Your task to perform on an android device: toggle wifi Image 0: 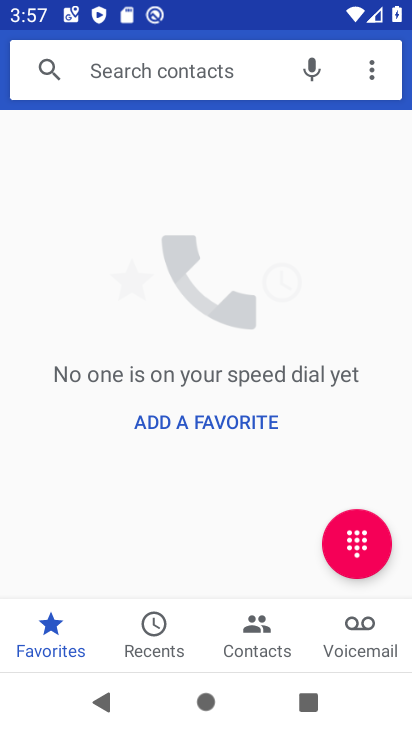
Step 0: press home button
Your task to perform on an android device: toggle wifi Image 1: 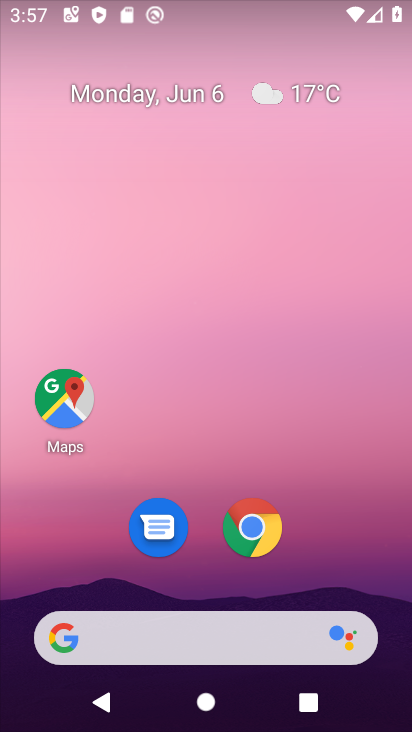
Step 1: drag from (155, 563) to (158, 316)
Your task to perform on an android device: toggle wifi Image 2: 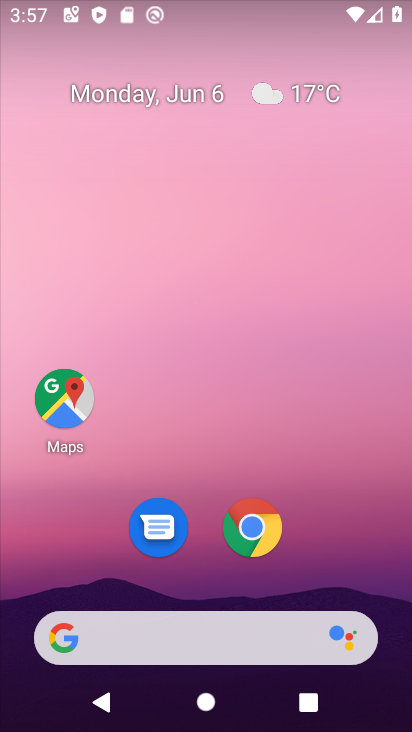
Step 2: drag from (222, 606) to (224, 223)
Your task to perform on an android device: toggle wifi Image 3: 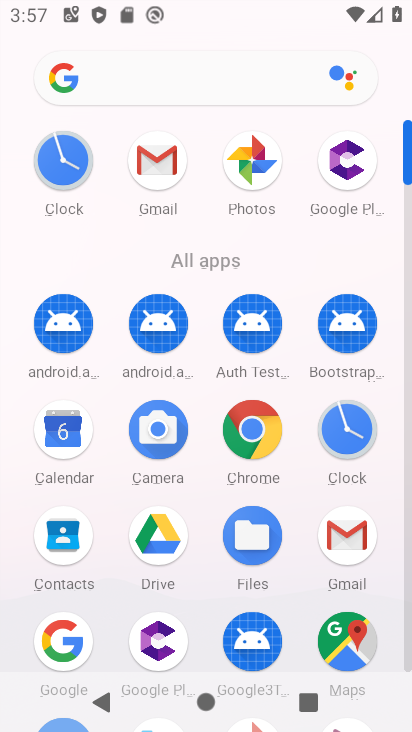
Step 3: drag from (211, 555) to (211, 305)
Your task to perform on an android device: toggle wifi Image 4: 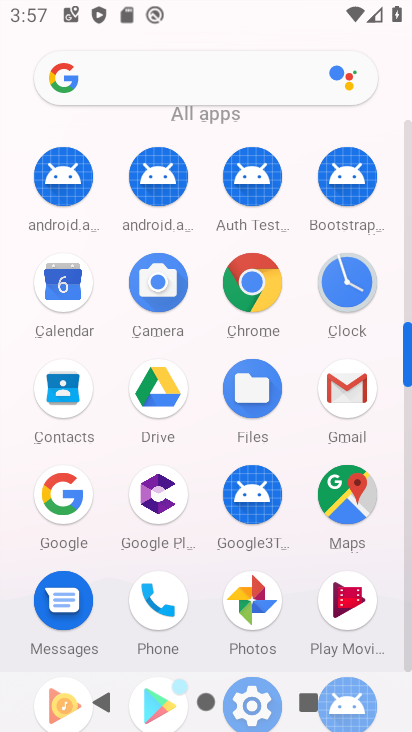
Step 4: drag from (287, 663) to (287, 297)
Your task to perform on an android device: toggle wifi Image 5: 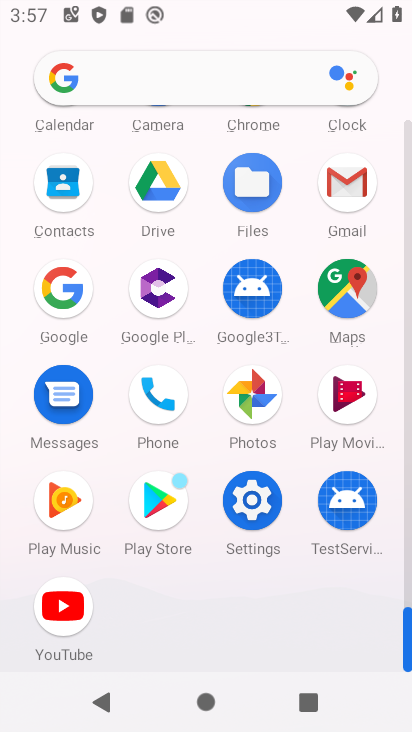
Step 5: click (234, 493)
Your task to perform on an android device: toggle wifi Image 6: 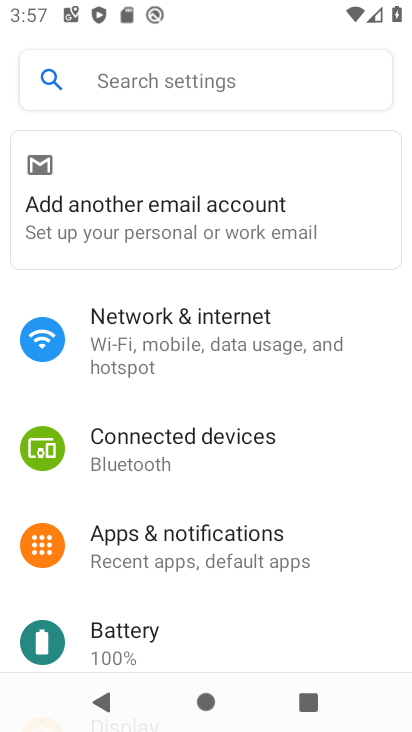
Step 6: click (187, 346)
Your task to perform on an android device: toggle wifi Image 7: 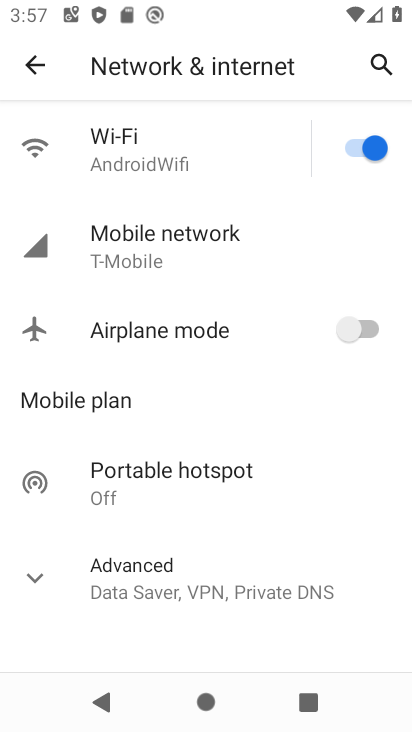
Step 7: click (353, 147)
Your task to perform on an android device: toggle wifi Image 8: 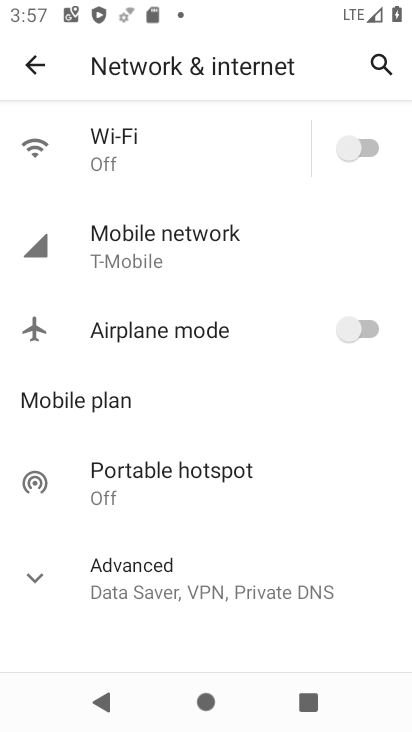
Step 8: task complete